Your task to perform on an android device: turn on bluetooth scan Image 0: 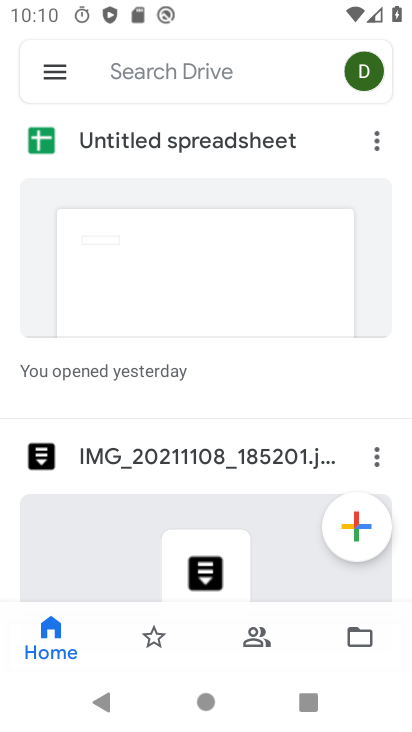
Step 0: press home button
Your task to perform on an android device: turn on bluetooth scan Image 1: 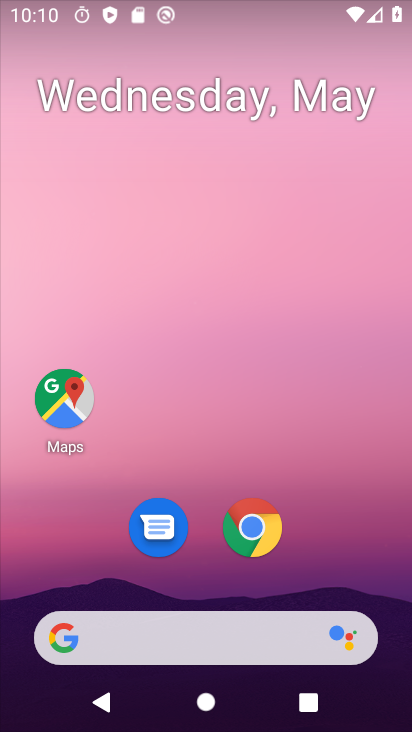
Step 1: drag from (352, 499) to (311, 156)
Your task to perform on an android device: turn on bluetooth scan Image 2: 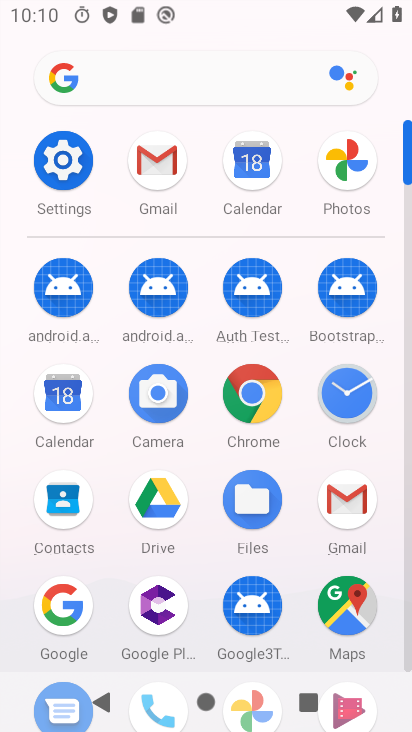
Step 2: click (60, 160)
Your task to perform on an android device: turn on bluetooth scan Image 3: 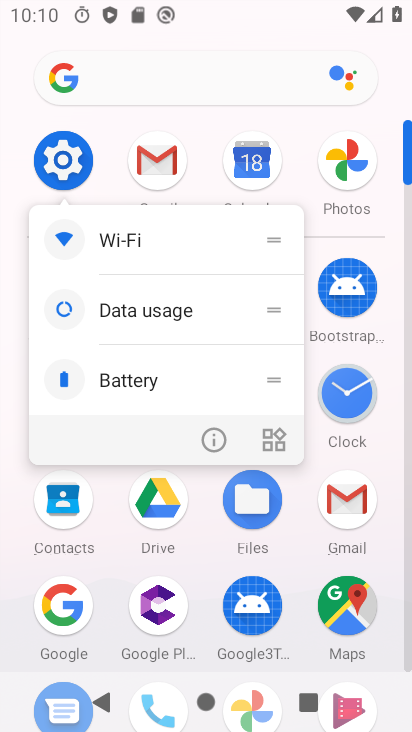
Step 3: click (54, 175)
Your task to perform on an android device: turn on bluetooth scan Image 4: 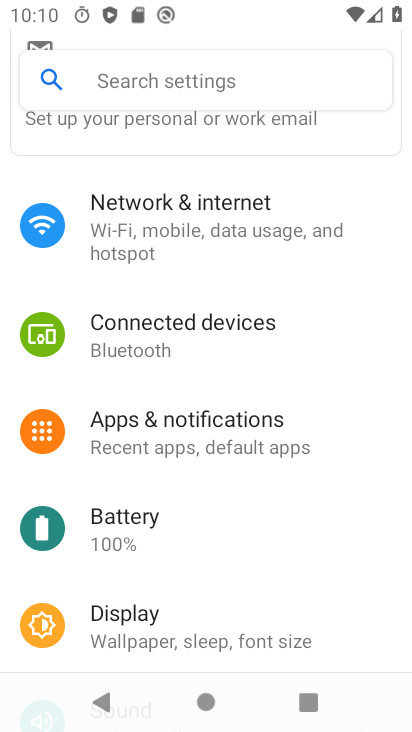
Step 4: drag from (347, 595) to (237, 172)
Your task to perform on an android device: turn on bluetooth scan Image 5: 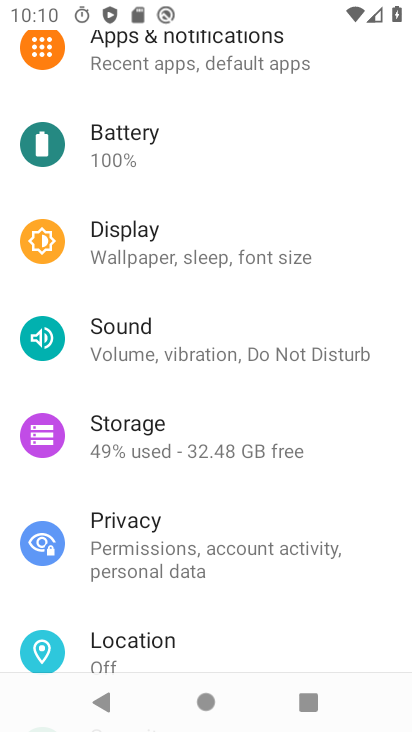
Step 5: drag from (223, 566) to (262, 229)
Your task to perform on an android device: turn on bluetooth scan Image 6: 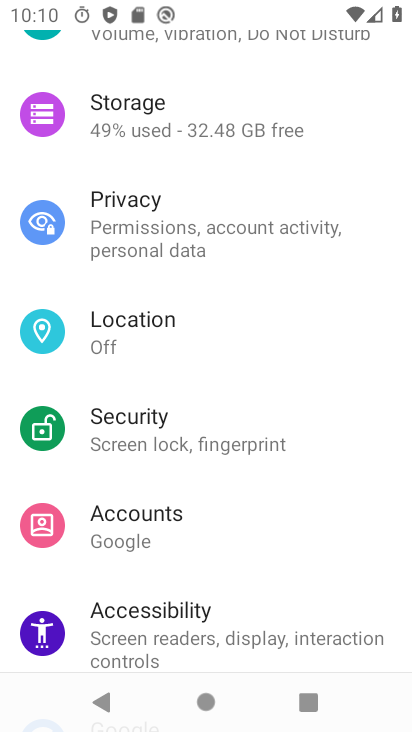
Step 6: drag from (243, 477) to (39, 203)
Your task to perform on an android device: turn on bluetooth scan Image 7: 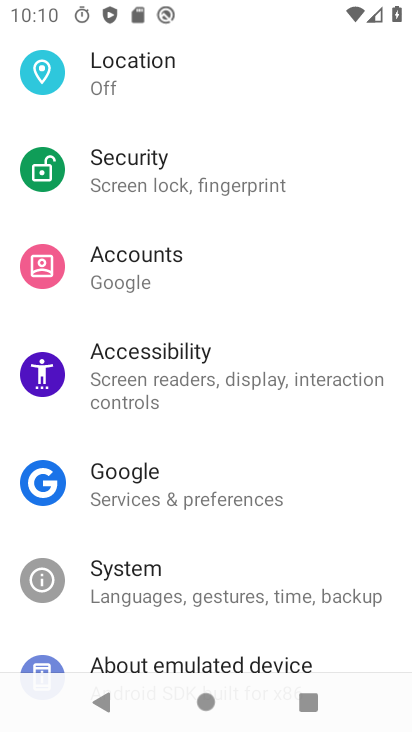
Step 7: drag from (130, 548) to (189, 680)
Your task to perform on an android device: turn on bluetooth scan Image 8: 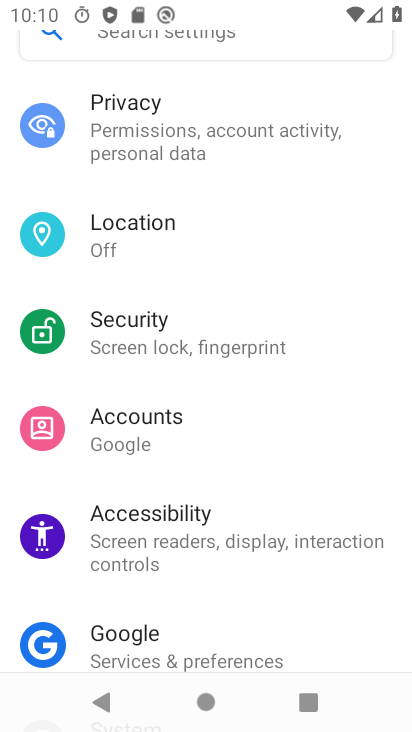
Step 8: click (197, 235)
Your task to perform on an android device: turn on bluetooth scan Image 9: 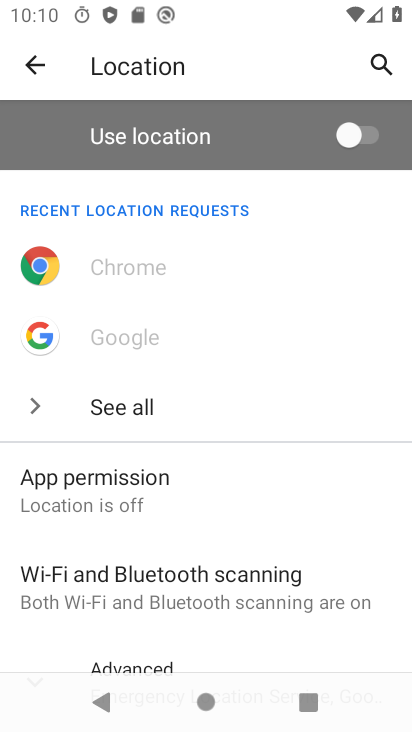
Step 9: click (182, 594)
Your task to perform on an android device: turn on bluetooth scan Image 10: 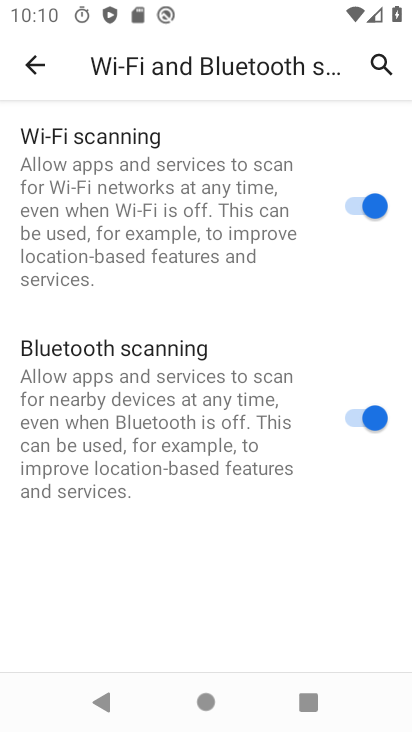
Step 10: task complete